Your task to perform on an android device: change notification settings in the gmail app Image 0: 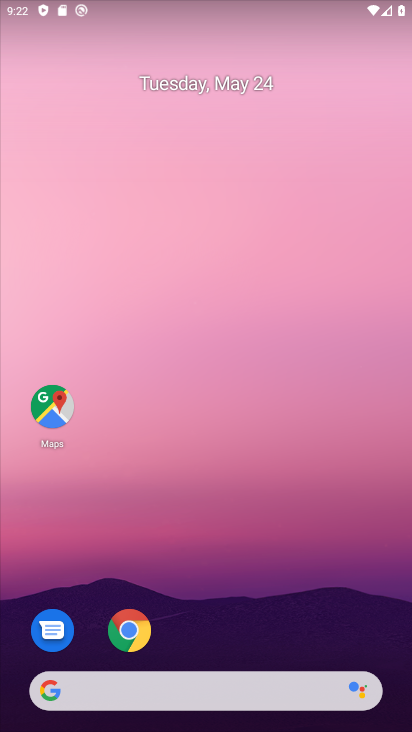
Step 0: press home button
Your task to perform on an android device: change notification settings in the gmail app Image 1: 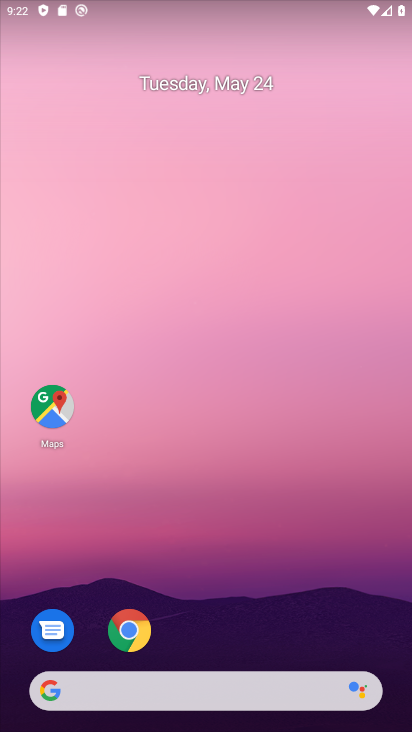
Step 1: drag from (219, 641) to (231, 52)
Your task to perform on an android device: change notification settings in the gmail app Image 2: 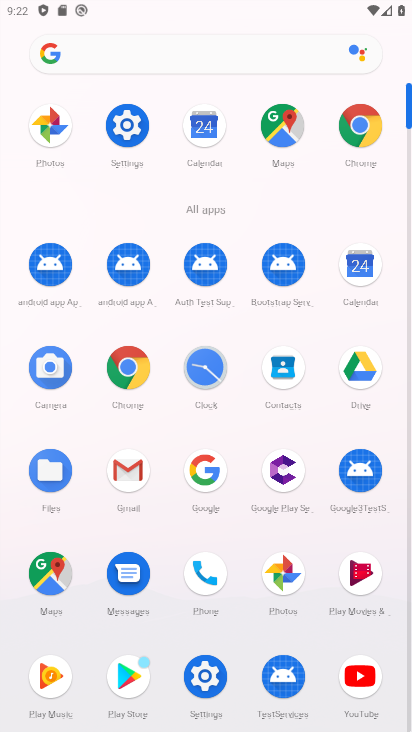
Step 2: click (127, 460)
Your task to perform on an android device: change notification settings in the gmail app Image 3: 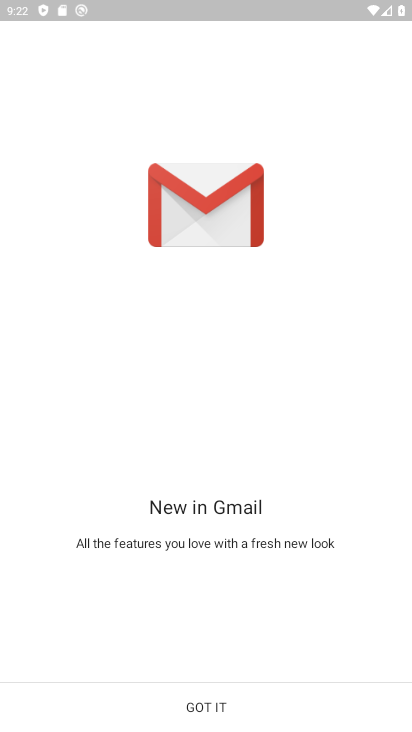
Step 3: click (211, 697)
Your task to perform on an android device: change notification settings in the gmail app Image 4: 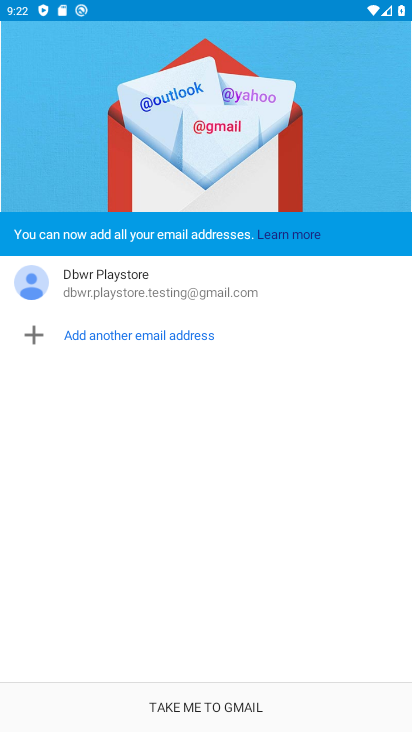
Step 4: click (211, 697)
Your task to perform on an android device: change notification settings in the gmail app Image 5: 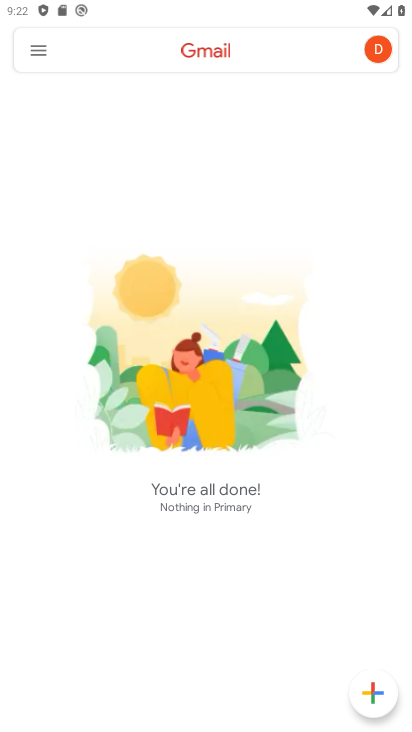
Step 5: click (31, 44)
Your task to perform on an android device: change notification settings in the gmail app Image 6: 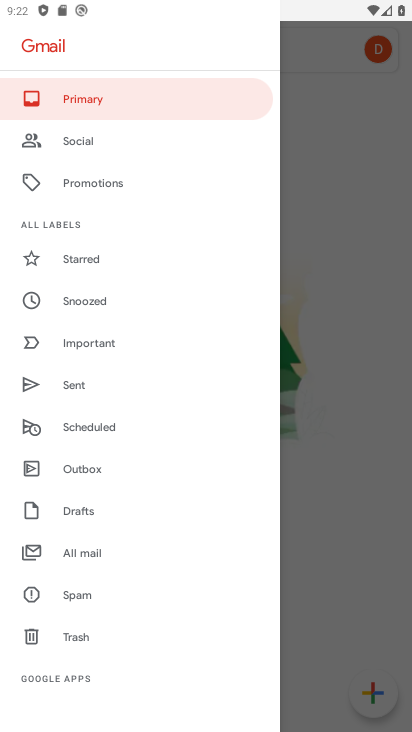
Step 6: drag from (100, 598) to (158, 144)
Your task to perform on an android device: change notification settings in the gmail app Image 7: 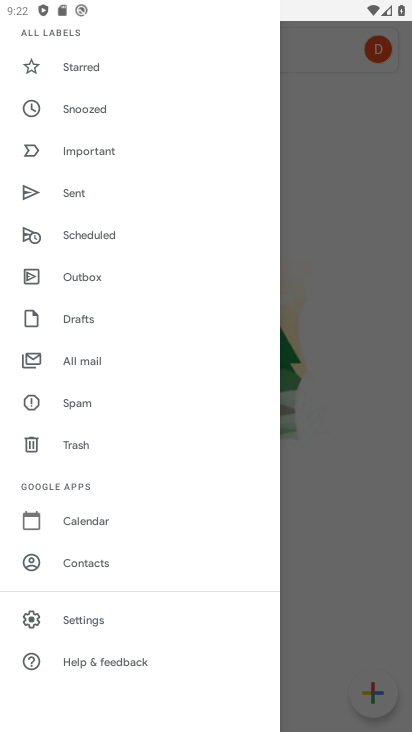
Step 7: click (115, 613)
Your task to perform on an android device: change notification settings in the gmail app Image 8: 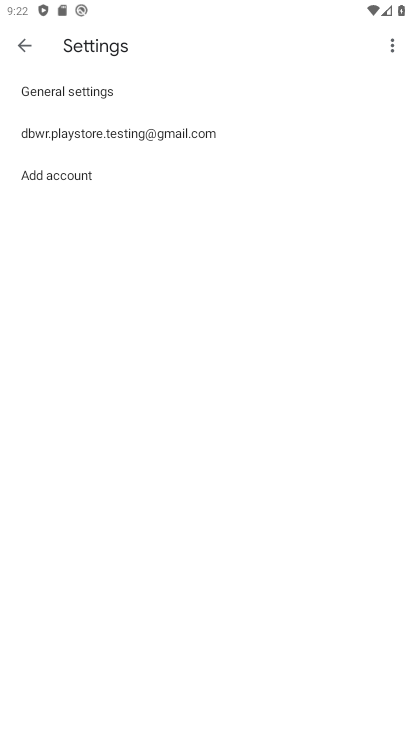
Step 8: click (125, 85)
Your task to perform on an android device: change notification settings in the gmail app Image 9: 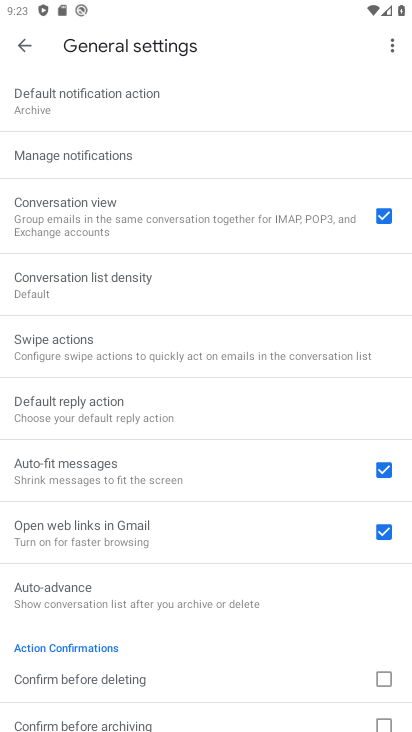
Step 9: click (156, 151)
Your task to perform on an android device: change notification settings in the gmail app Image 10: 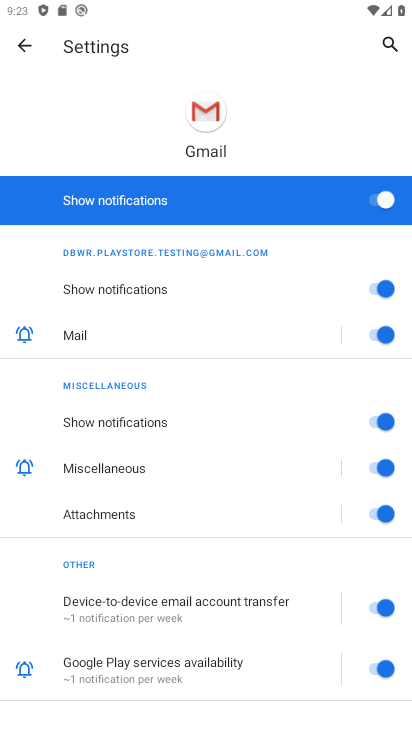
Step 10: click (376, 192)
Your task to perform on an android device: change notification settings in the gmail app Image 11: 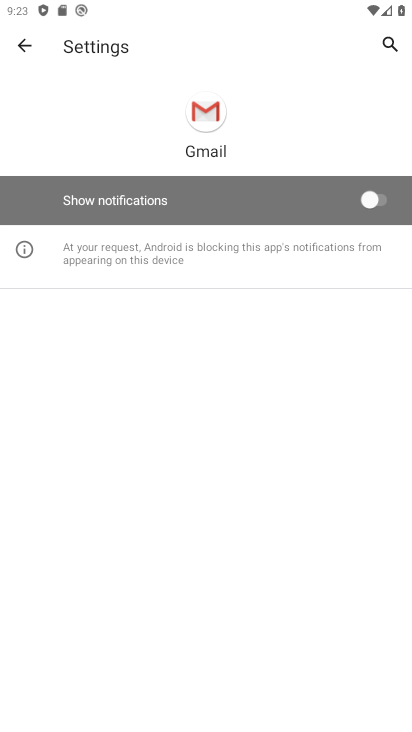
Step 11: task complete